Your task to perform on an android device: Open location settings Image 0: 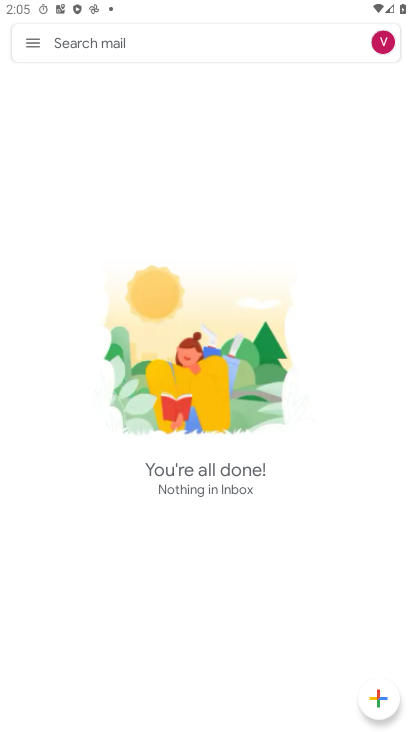
Step 0: press home button
Your task to perform on an android device: Open location settings Image 1: 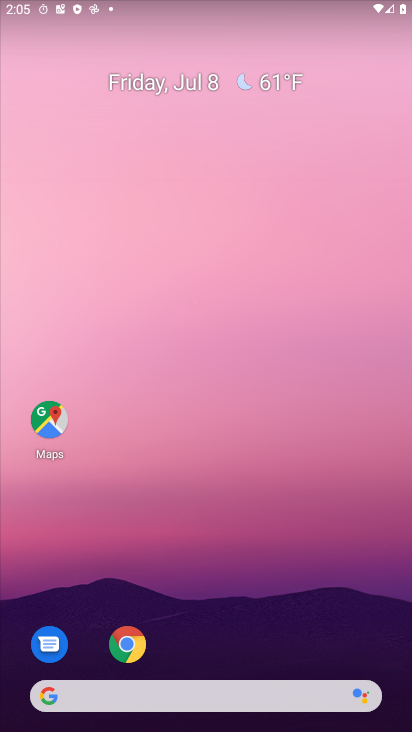
Step 1: drag from (175, 625) to (156, 540)
Your task to perform on an android device: Open location settings Image 2: 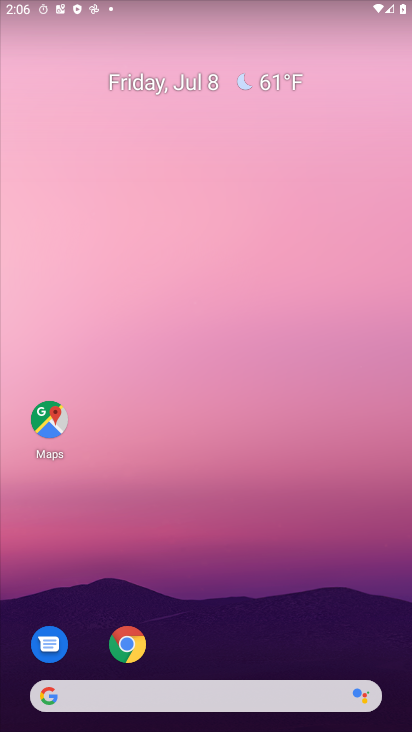
Step 2: drag from (156, 455) to (166, 77)
Your task to perform on an android device: Open location settings Image 3: 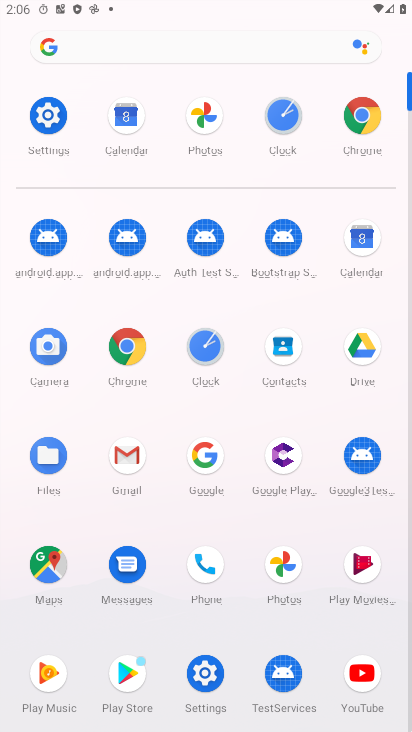
Step 3: click (49, 145)
Your task to perform on an android device: Open location settings Image 4: 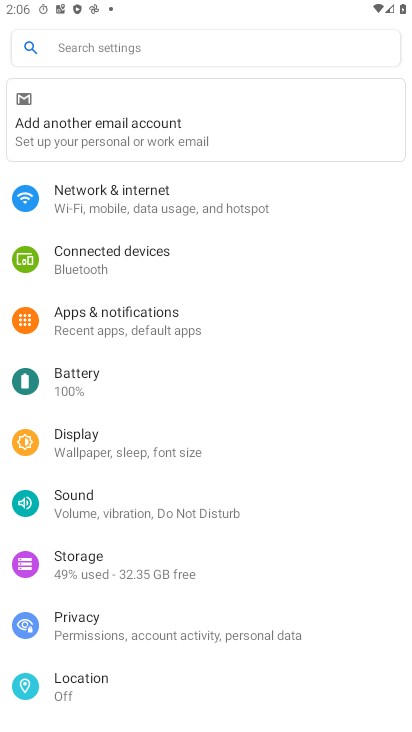
Step 4: click (86, 690)
Your task to perform on an android device: Open location settings Image 5: 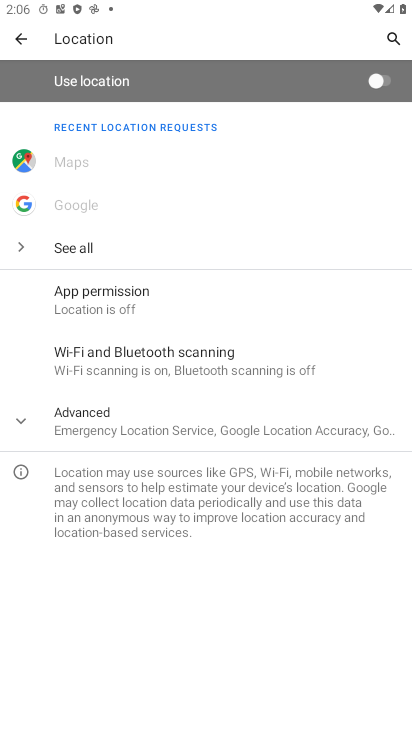
Step 5: task complete